Your task to perform on an android device: empty trash in google photos Image 0: 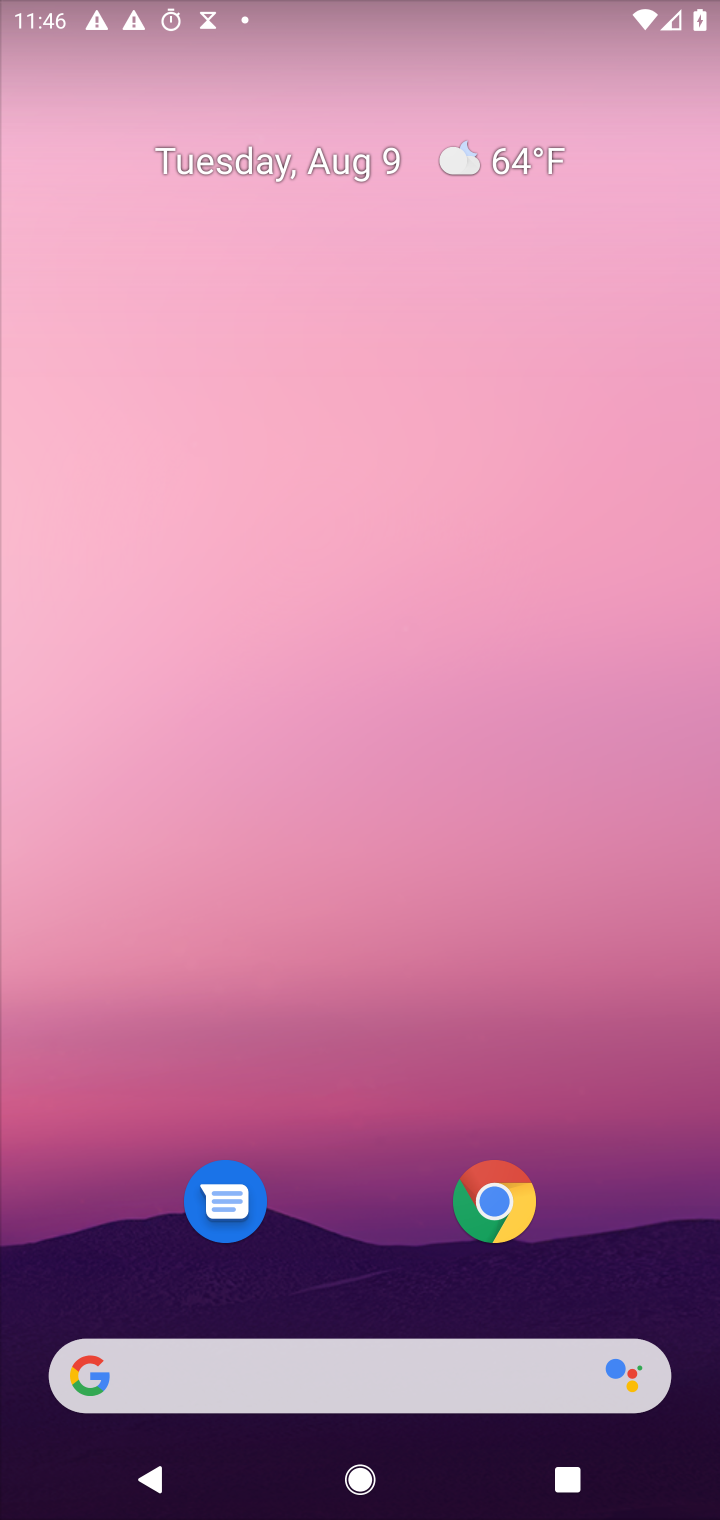
Step 0: press home button
Your task to perform on an android device: empty trash in google photos Image 1: 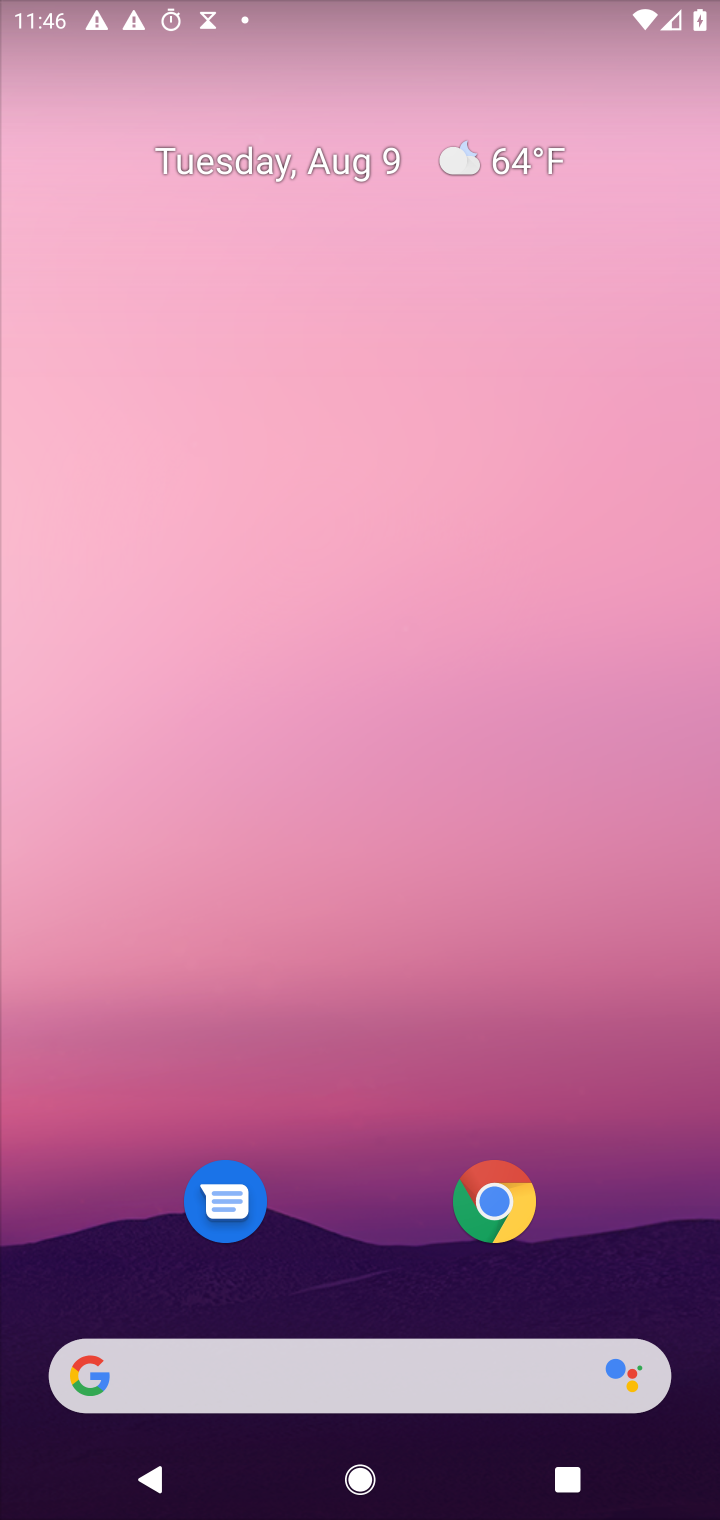
Step 1: drag from (338, 1034) to (402, 238)
Your task to perform on an android device: empty trash in google photos Image 2: 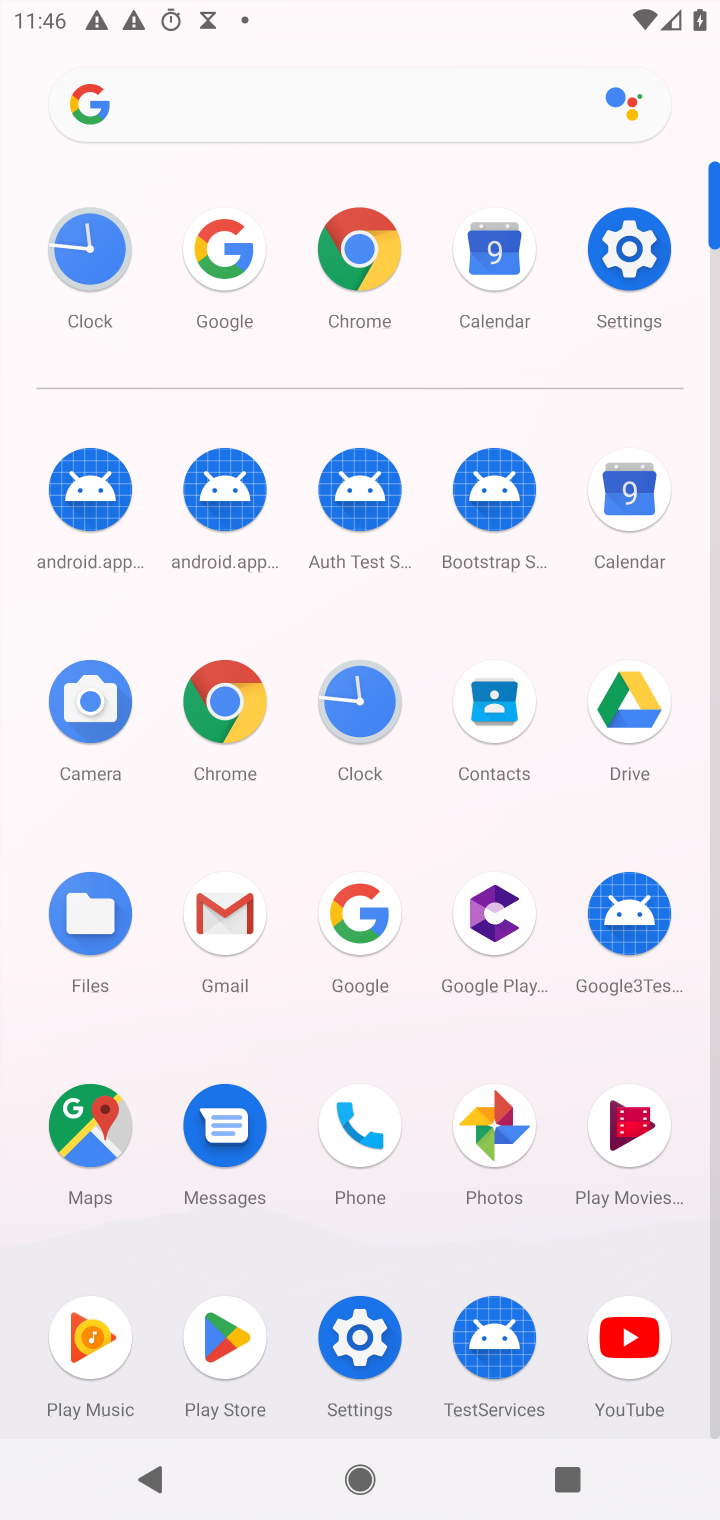
Step 2: click (483, 1143)
Your task to perform on an android device: empty trash in google photos Image 3: 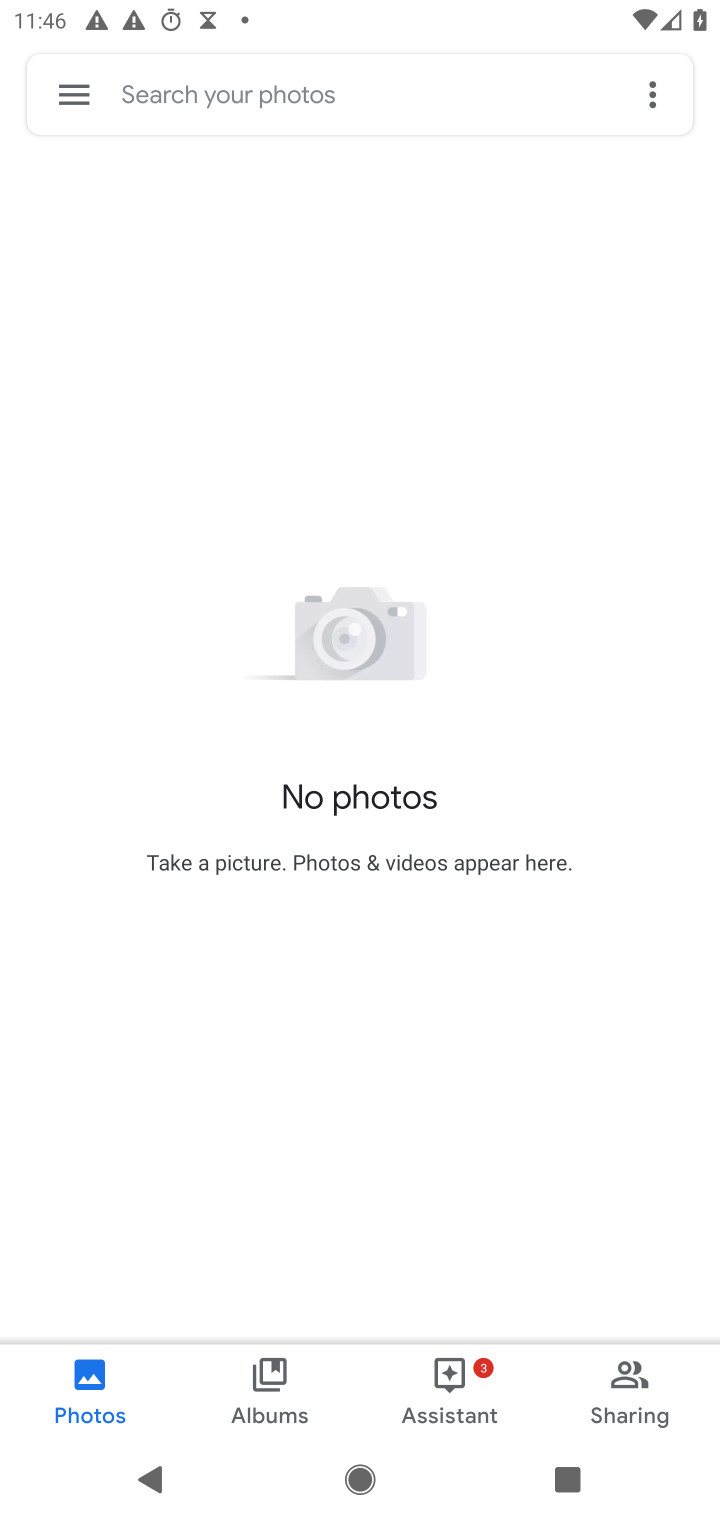
Step 3: click (69, 94)
Your task to perform on an android device: empty trash in google photos Image 4: 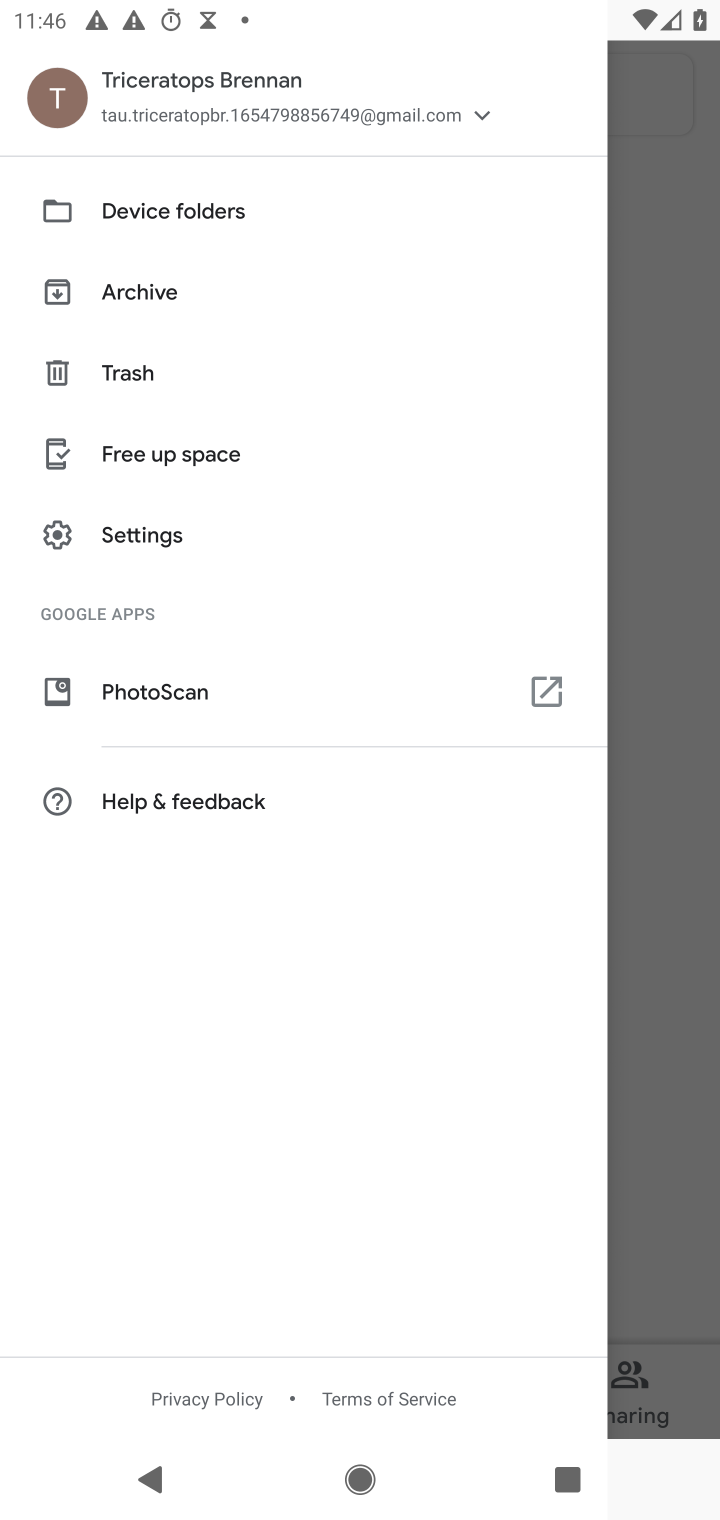
Step 4: click (156, 371)
Your task to perform on an android device: empty trash in google photos Image 5: 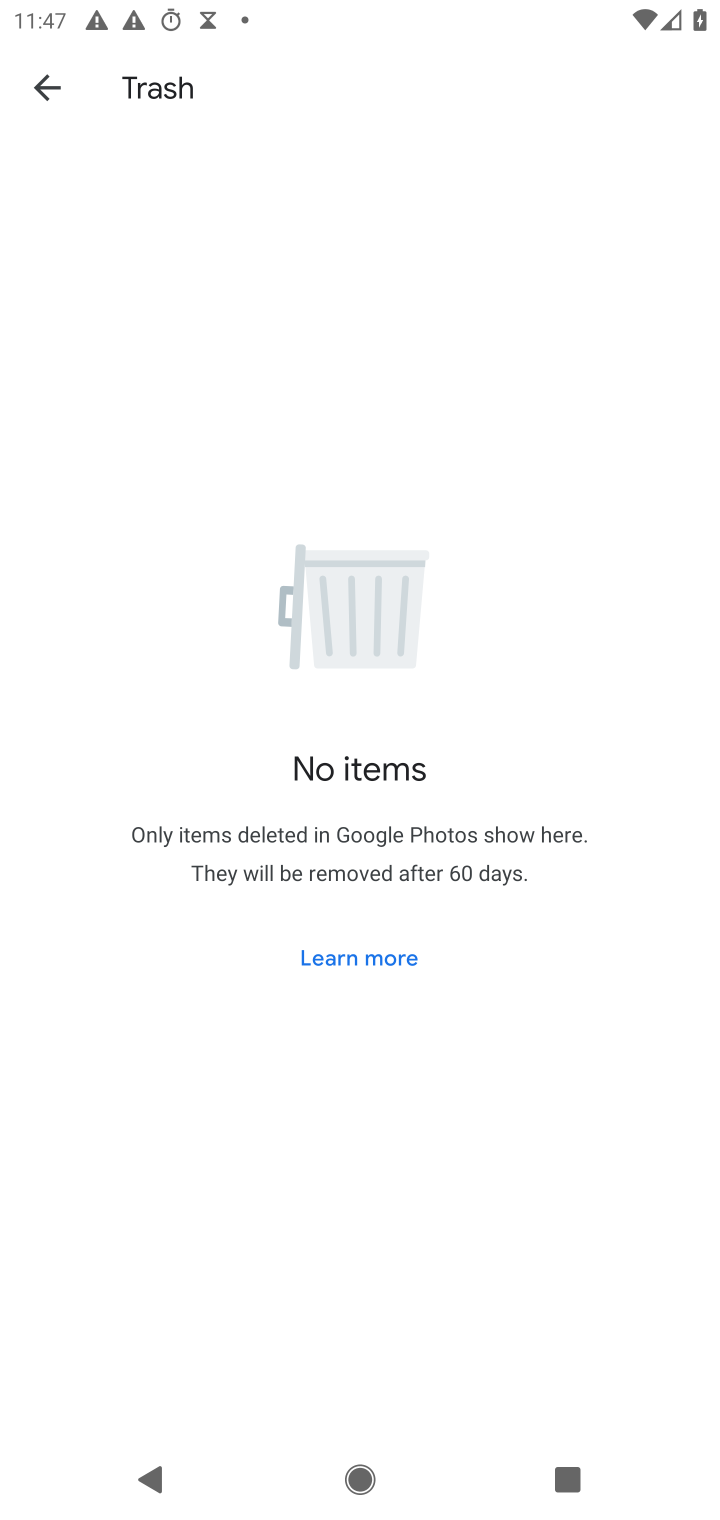
Step 5: task complete